Your task to perform on an android device: Clear the cart on target. Search for "usb-c" on target, select the first entry, and add it to the cart. Image 0: 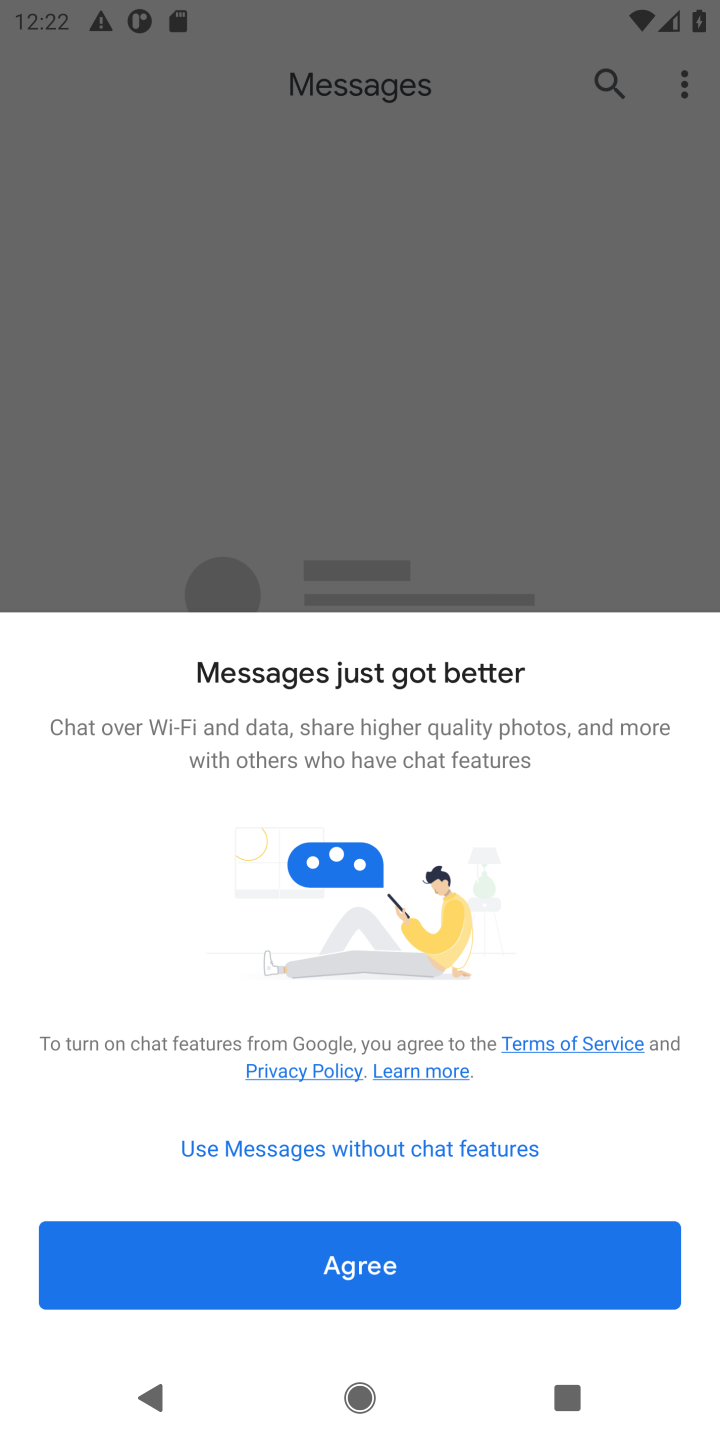
Step 0: press home button
Your task to perform on an android device: Clear the cart on target. Search for "usb-c" on target, select the first entry, and add it to the cart. Image 1: 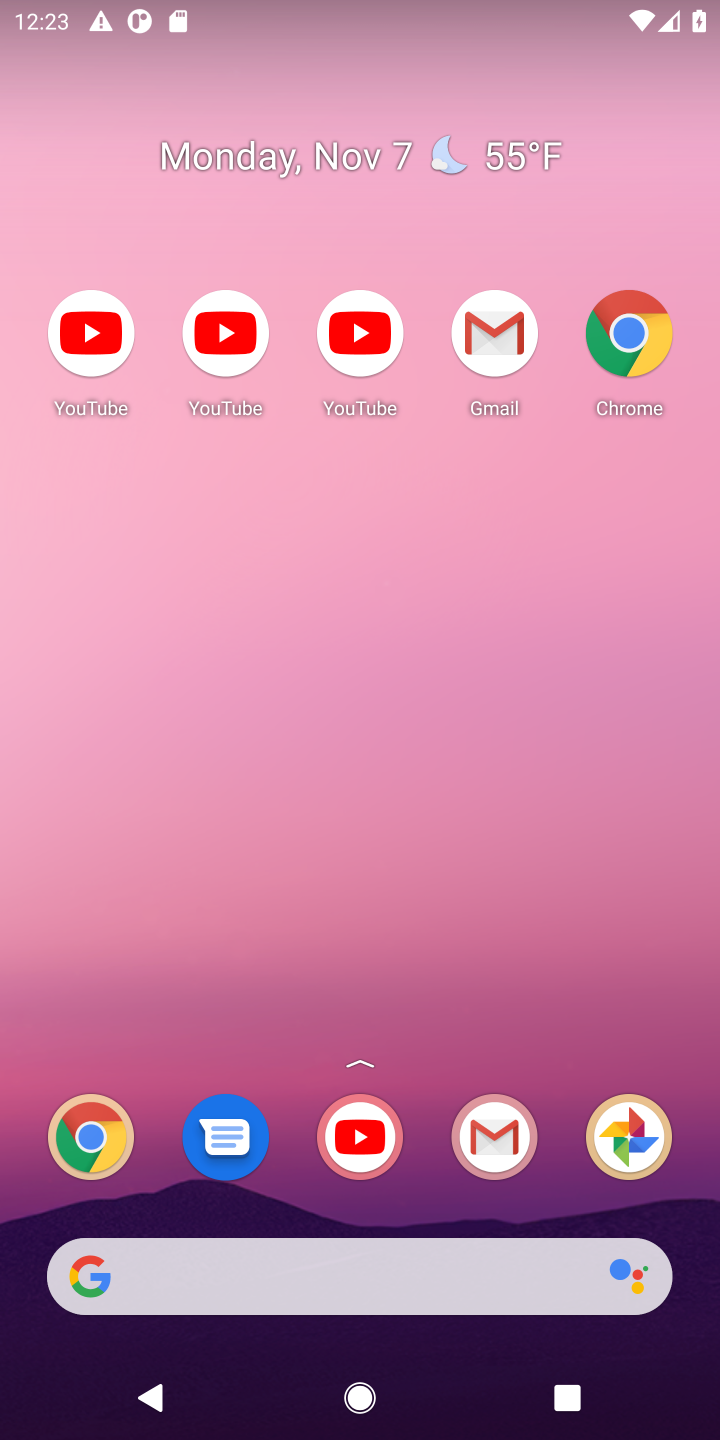
Step 1: drag from (412, 1175) to (485, 121)
Your task to perform on an android device: Clear the cart on target. Search for "usb-c" on target, select the first entry, and add it to the cart. Image 2: 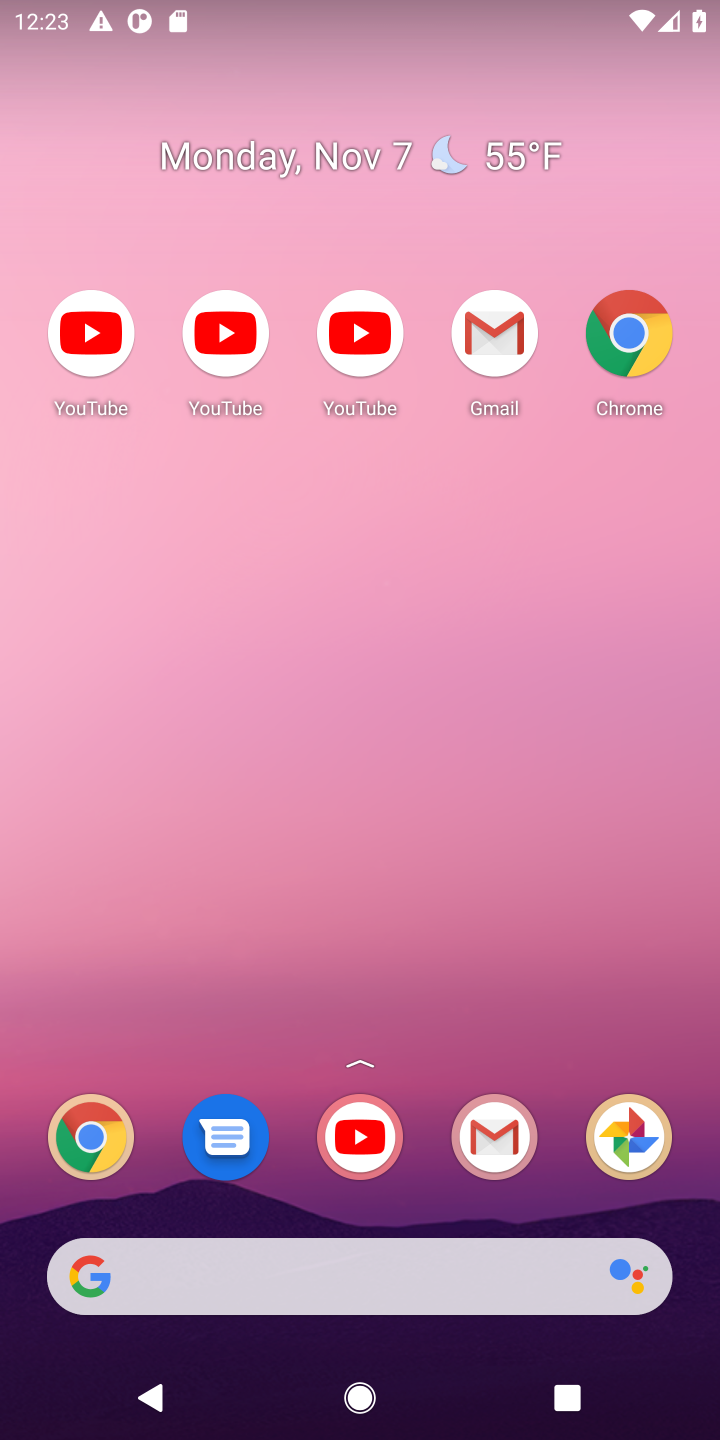
Step 2: drag from (421, 1209) to (432, 144)
Your task to perform on an android device: Clear the cart on target. Search for "usb-c" on target, select the first entry, and add it to the cart. Image 3: 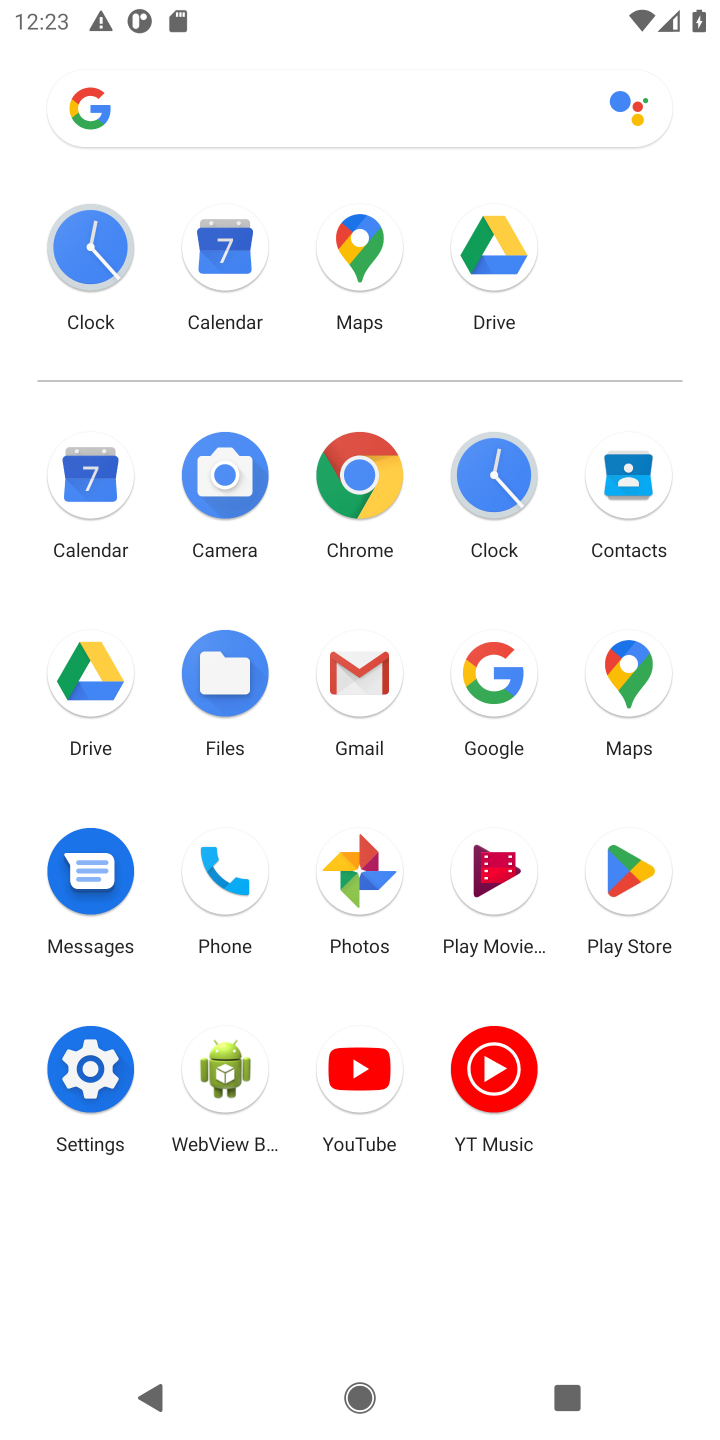
Step 3: click (343, 470)
Your task to perform on an android device: Clear the cart on target. Search for "usb-c" on target, select the first entry, and add it to the cart. Image 4: 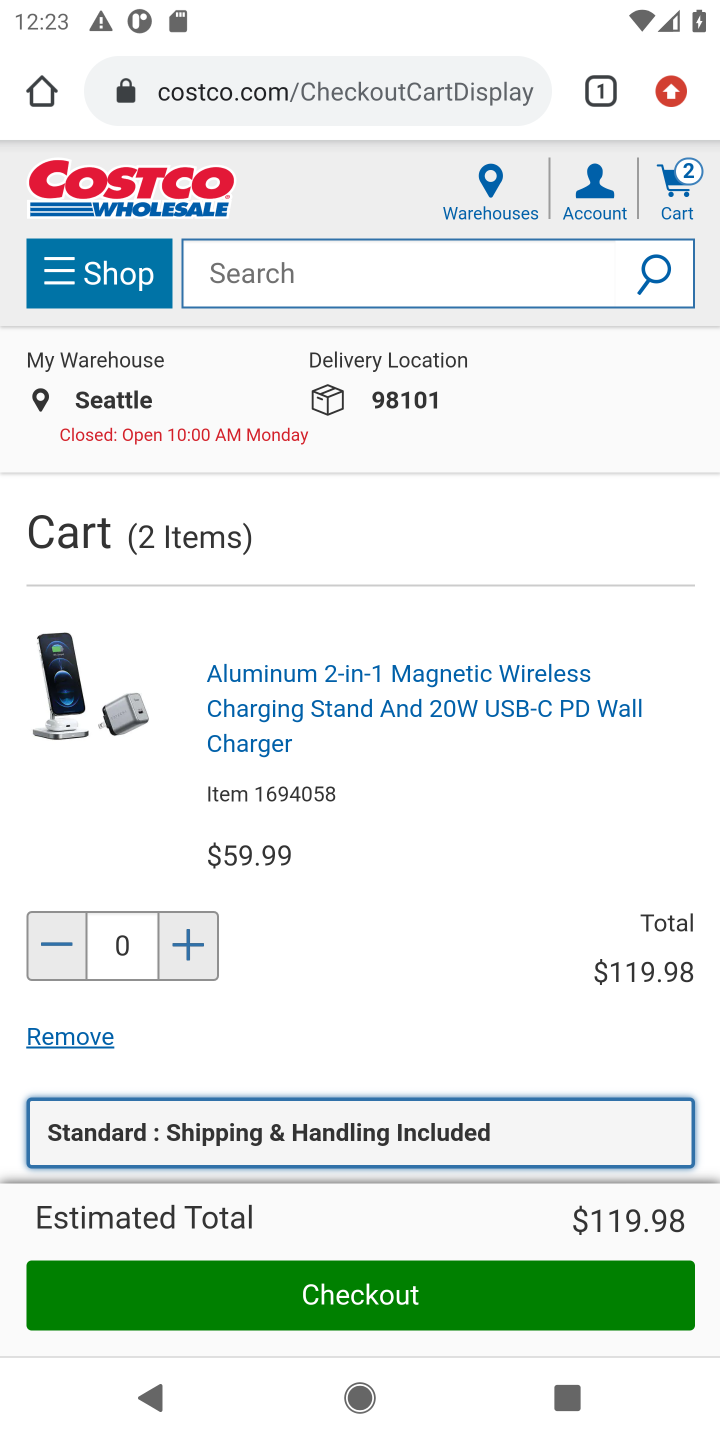
Step 4: click (379, 99)
Your task to perform on an android device: Clear the cart on target. Search for "usb-c" on target, select the first entry, and add it to the cart. Image 5: 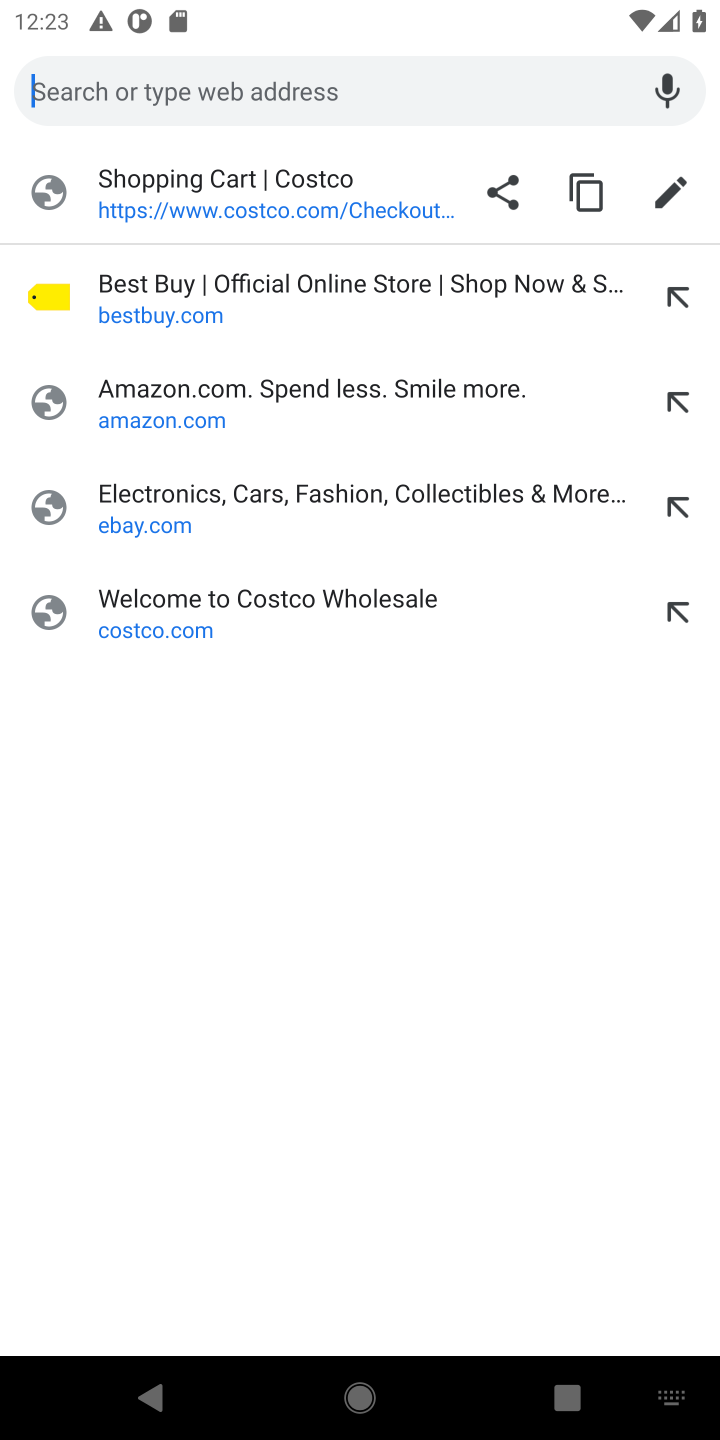
Step 5: type "target.com"
Your task to perform on an android device: Clear the cart on target. Search for "usb-c" on target, select the first entry, and add it to the cart. Image 6: 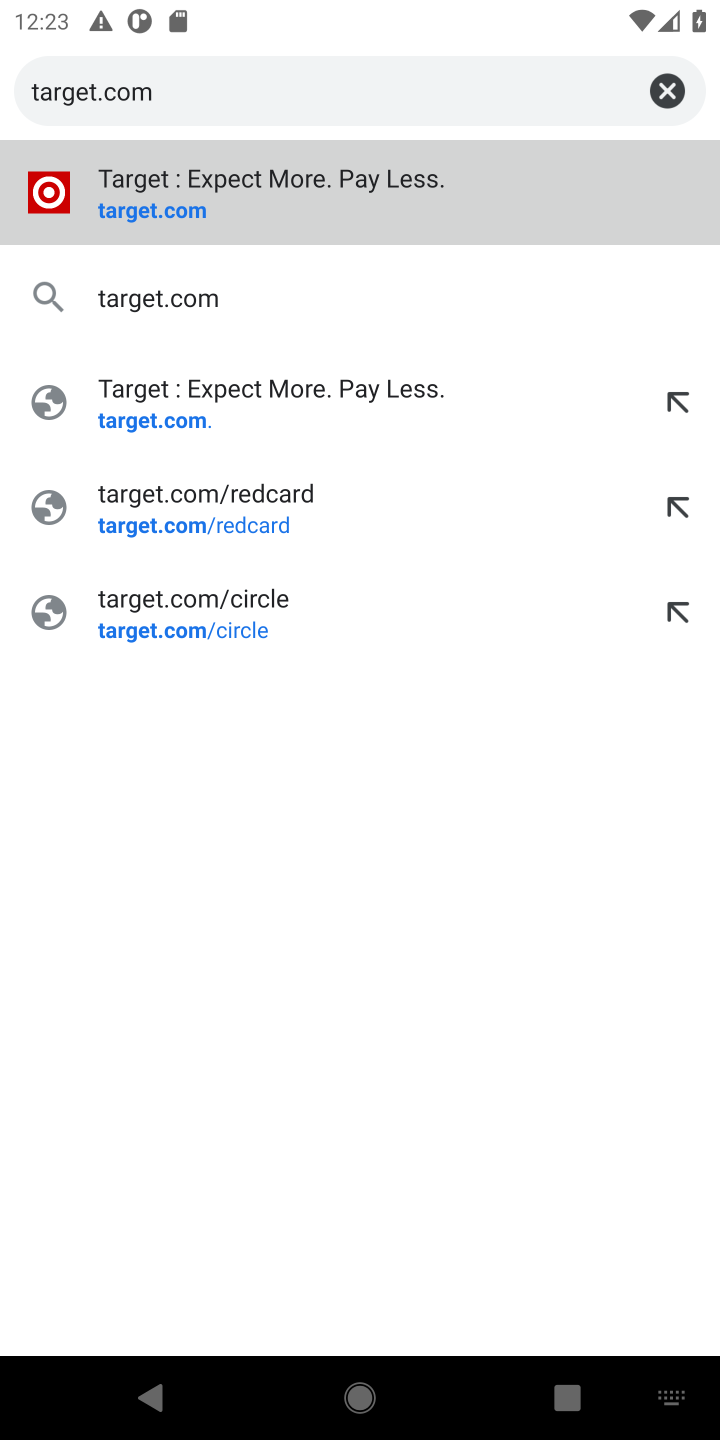
Step 6: press enter
Your task to perform on an android device: Clear the cart on target. Search for "usb-c" on target, select the first entry, and add it to the cart. Image 7: 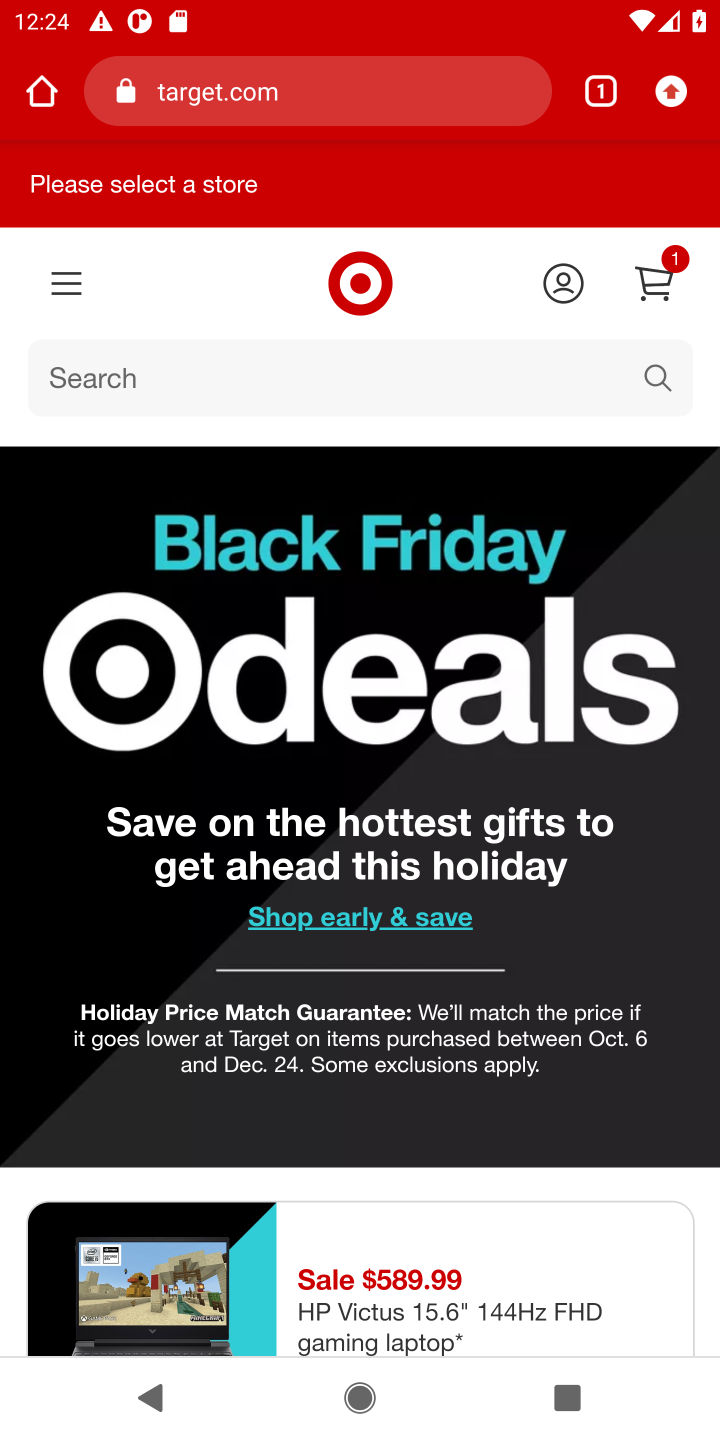
Step 7: click (653, 274)
Your task to perform on an android device: Clear the cart on target. Search for "usb-c" on target, select the first entry, and add it to the cart. Image 8: 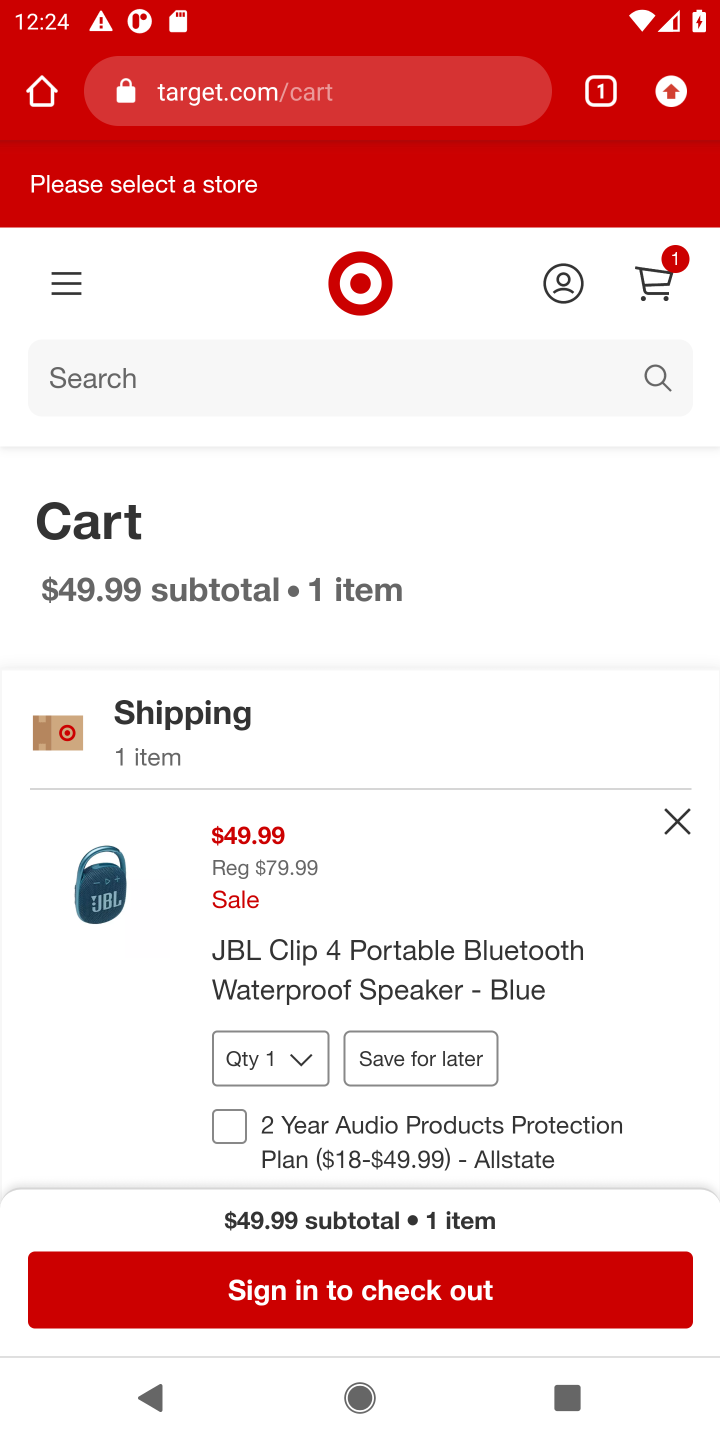
Step 8: click (673, 824)
Your task to perform on an android device: Clear the cart on target. Search for "usb-c" on target, select the first entry, and add it to the cart. Image 9: 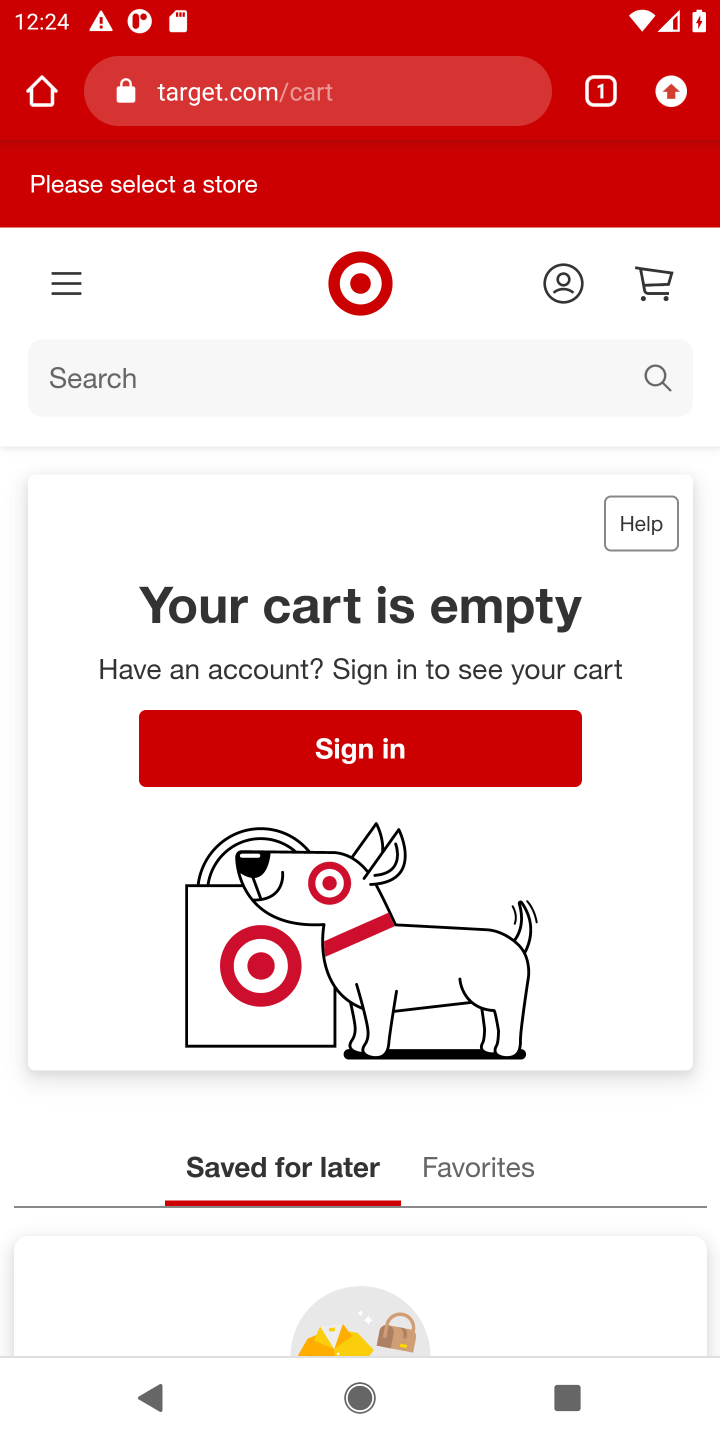
Step 9: click (474, 382)
Your task to perform on an android device: Clear the cart on target. Search for "usb-c" on target, select the first entry, and add it to the cart. Image 10: 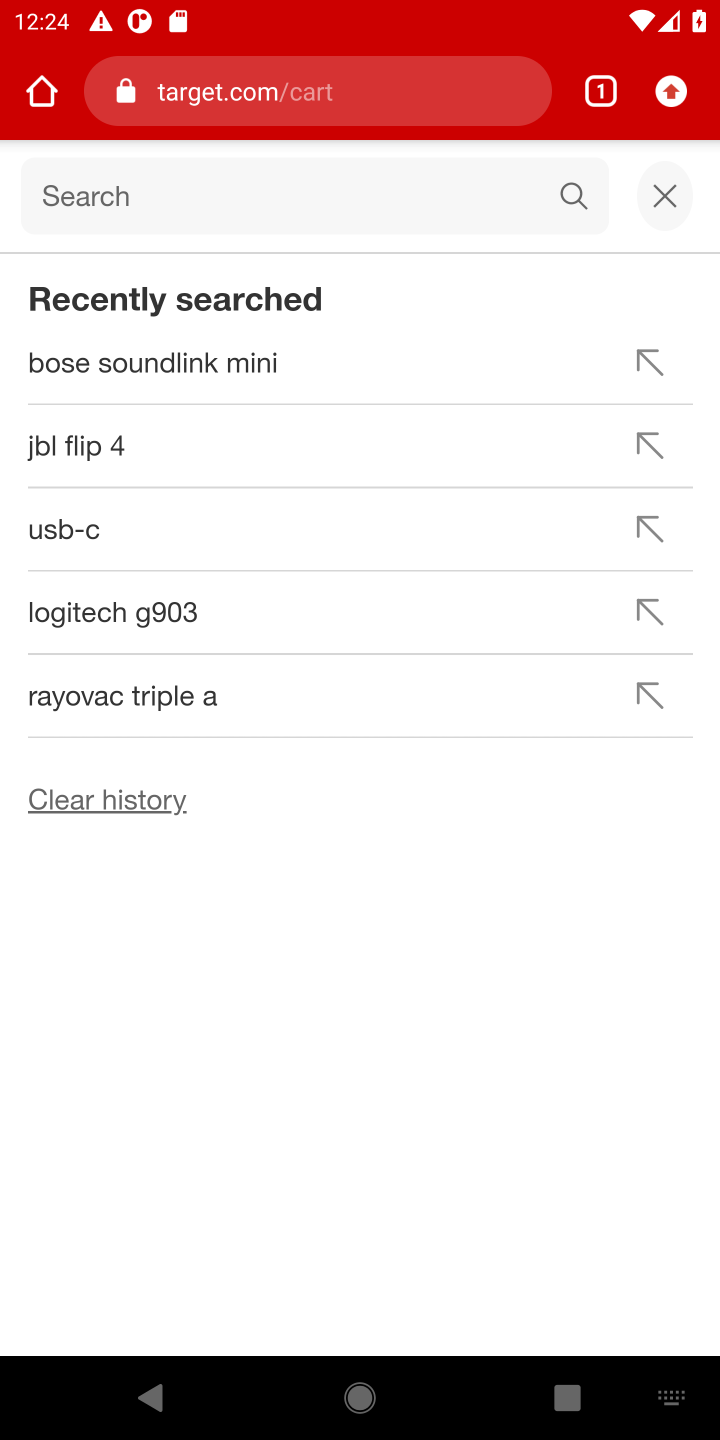
Step 10: type "usb-c"
Your task to perform on an android device: Clear the cart on target. Search for "usb-c" on target, select the first entry, and add it to the cart. Image 11: 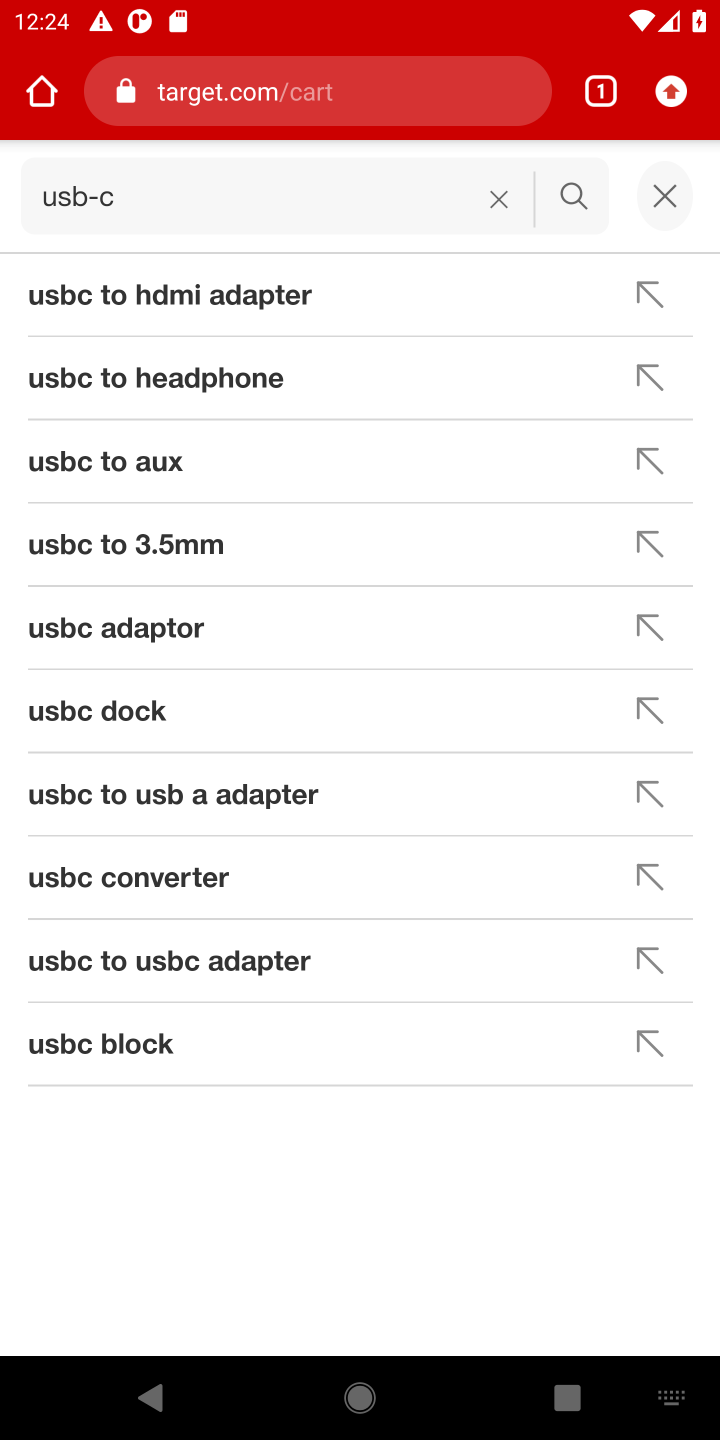
Step 11: press enter
Your task to perform on an android device: Clear the cart on target. Search for "usb-c" on target, select the first entry, and add it to the cart. Image 12: 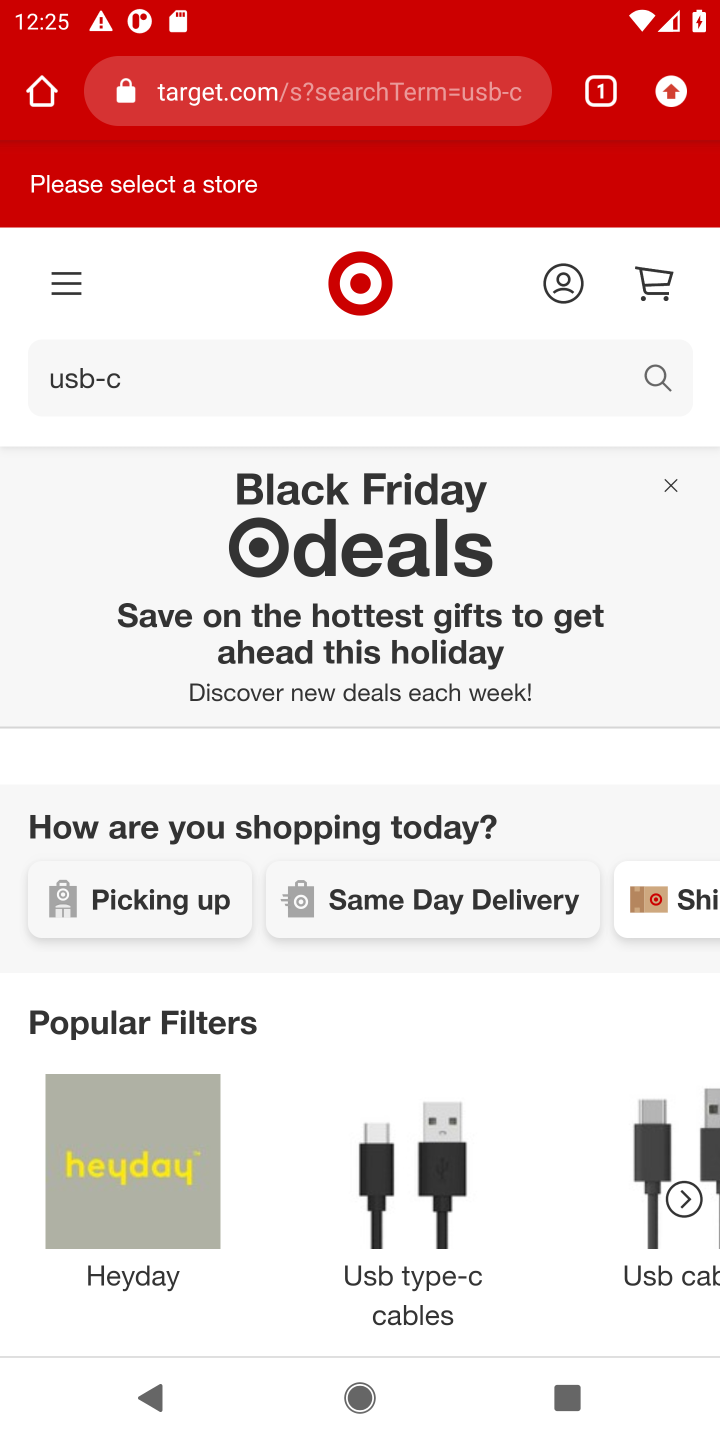
Step 12: drag from (295, 1110) to (302, 770)
Your task to perform on an android device: Clear the cart on target. Search for "usb-c" on target, select the first entry, and add it to the cart. Image 13: 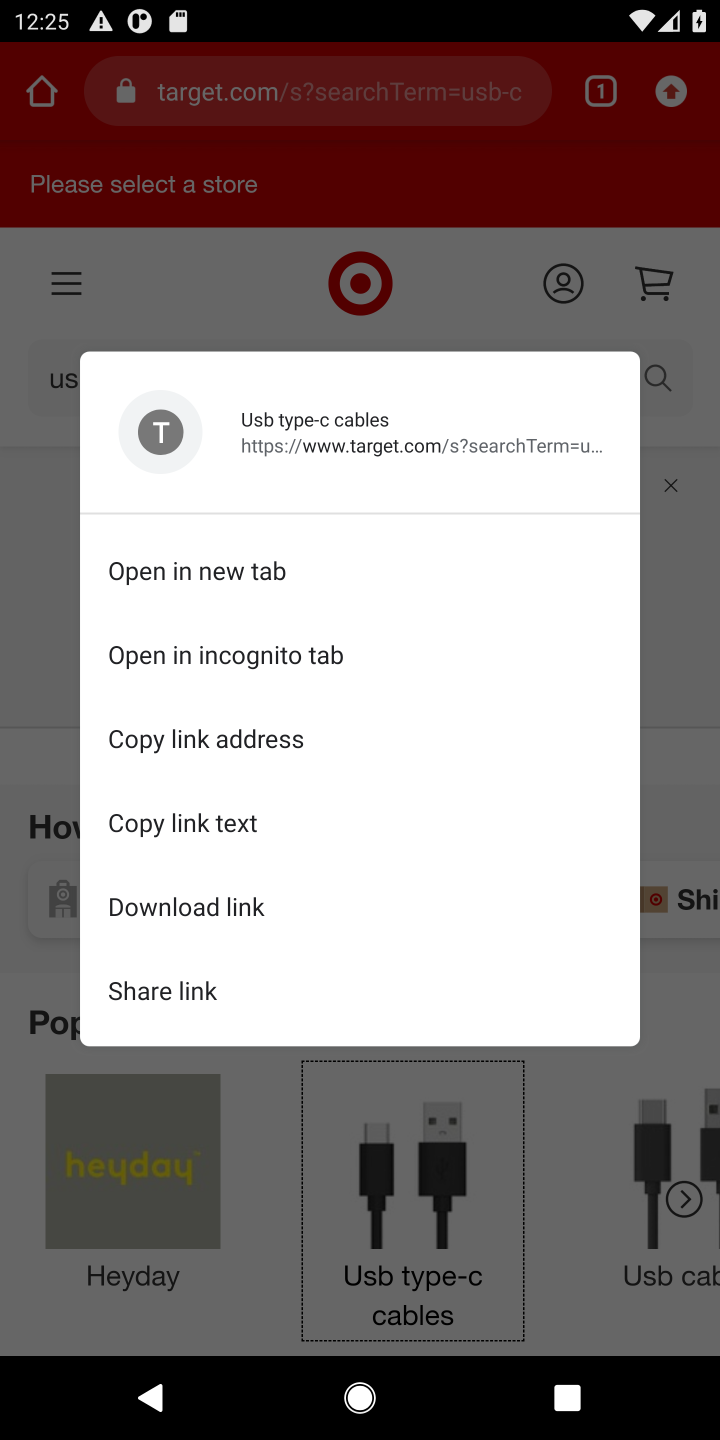
Step 13: click (583, 291)
Your task to perform on an android device: Clear the cart on target. Search for "usb-c" on target, select the first entry, and add it to the cart. Image 14: 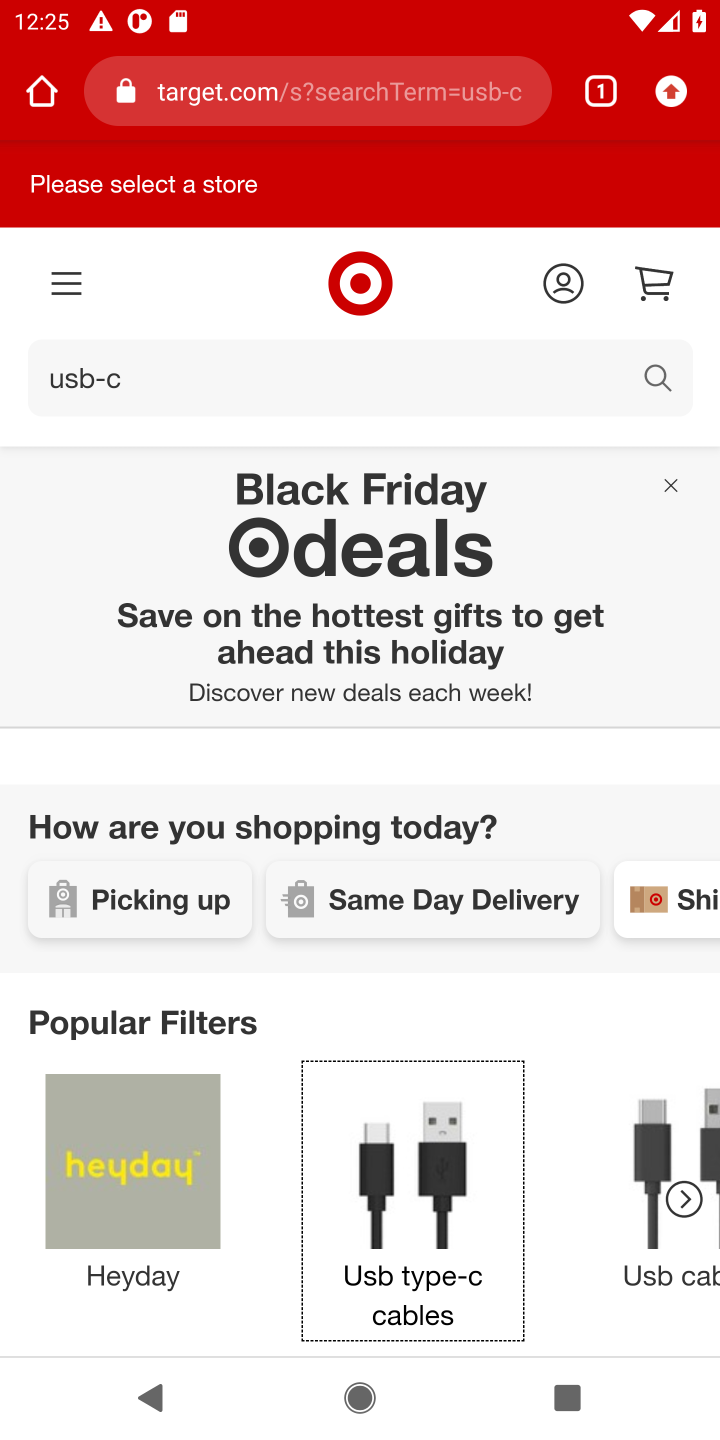
Step 14: drag from (557, 1276) to (473, 291)
Your task to perform on an android device: Clear the cart on target. Search for "usb-c" on target, select the first entry, and add it to the cart. Image 15: 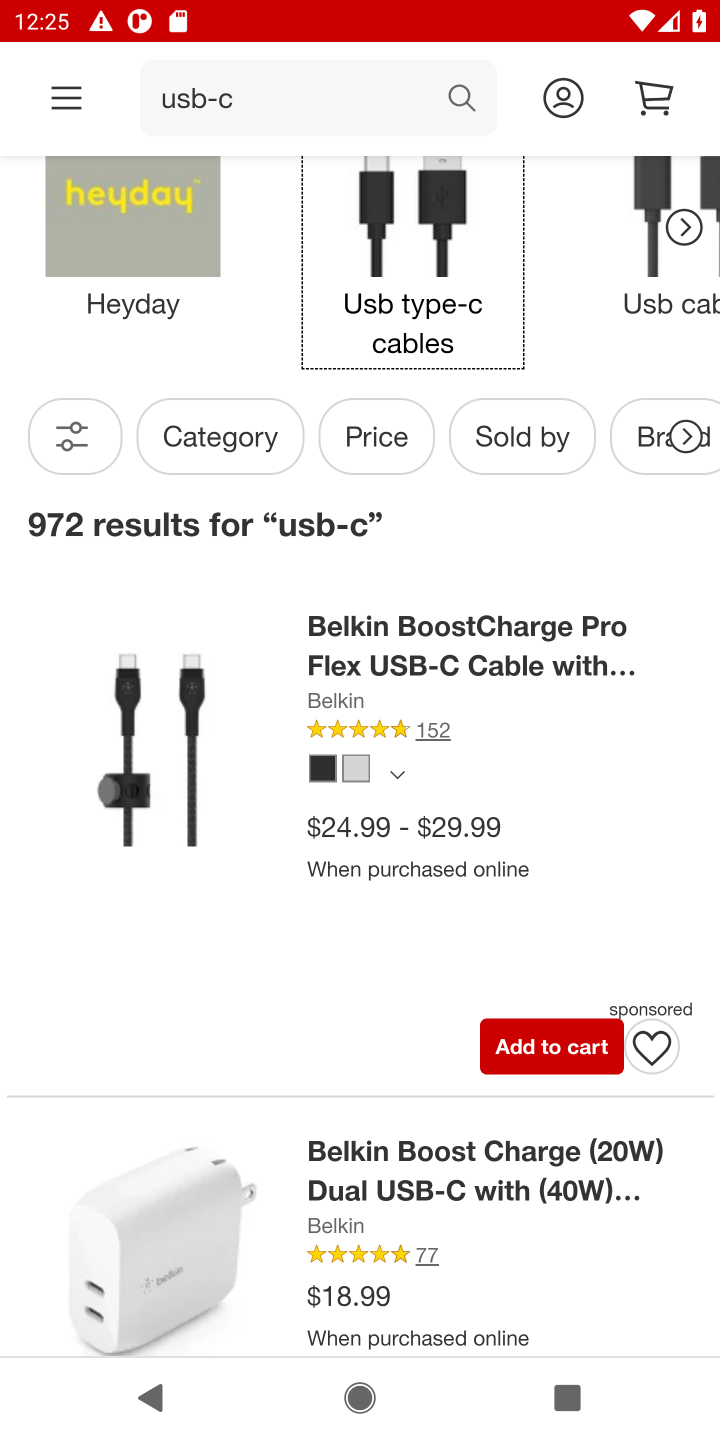
Step 15: click (552, 1043)
Your task to perform on an android device: Clear the cart on target. Search for "usb-c" on target, select the first entry, and add it to the cart. Image 16: 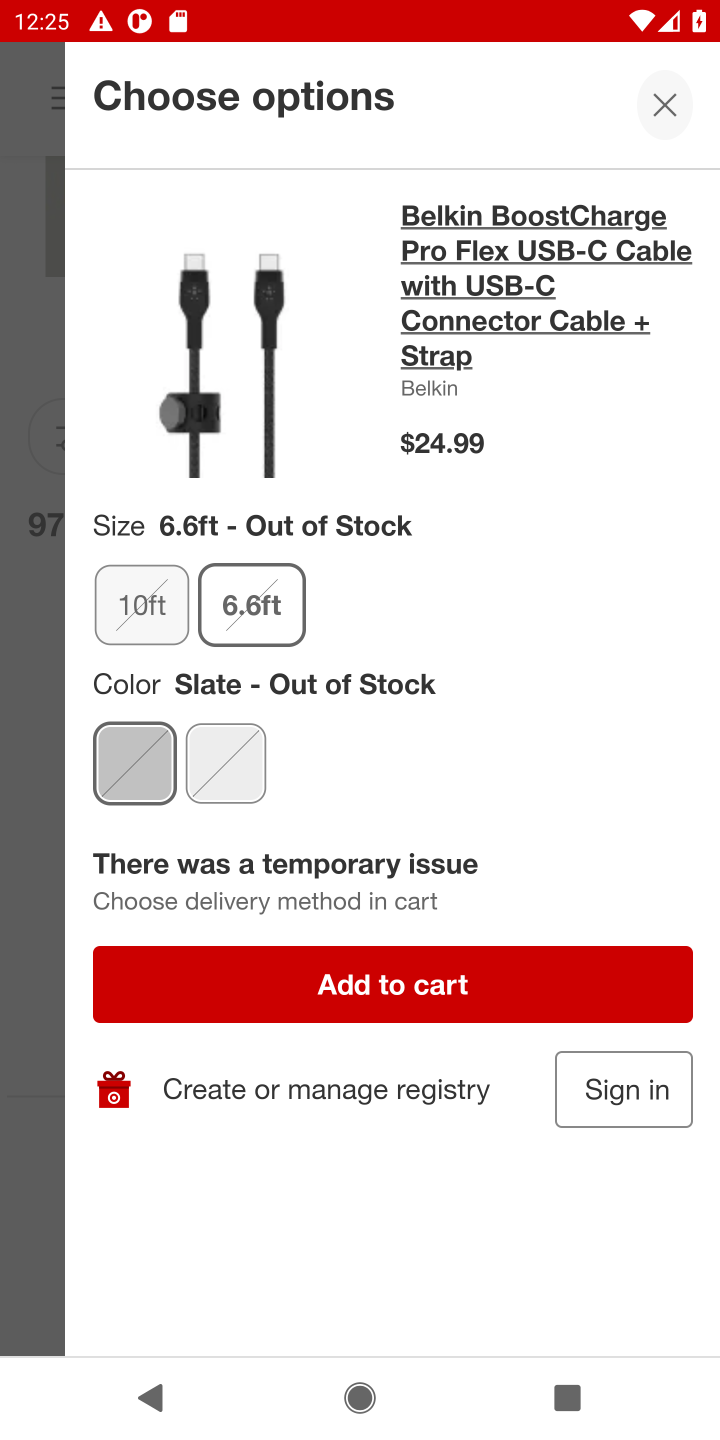
Step 16: click (496, 1011)
Your task to perform on an android device: Clear the cart on target. Search for "usb-c" on target, select the first entry, and add it to the cart. Image 17: 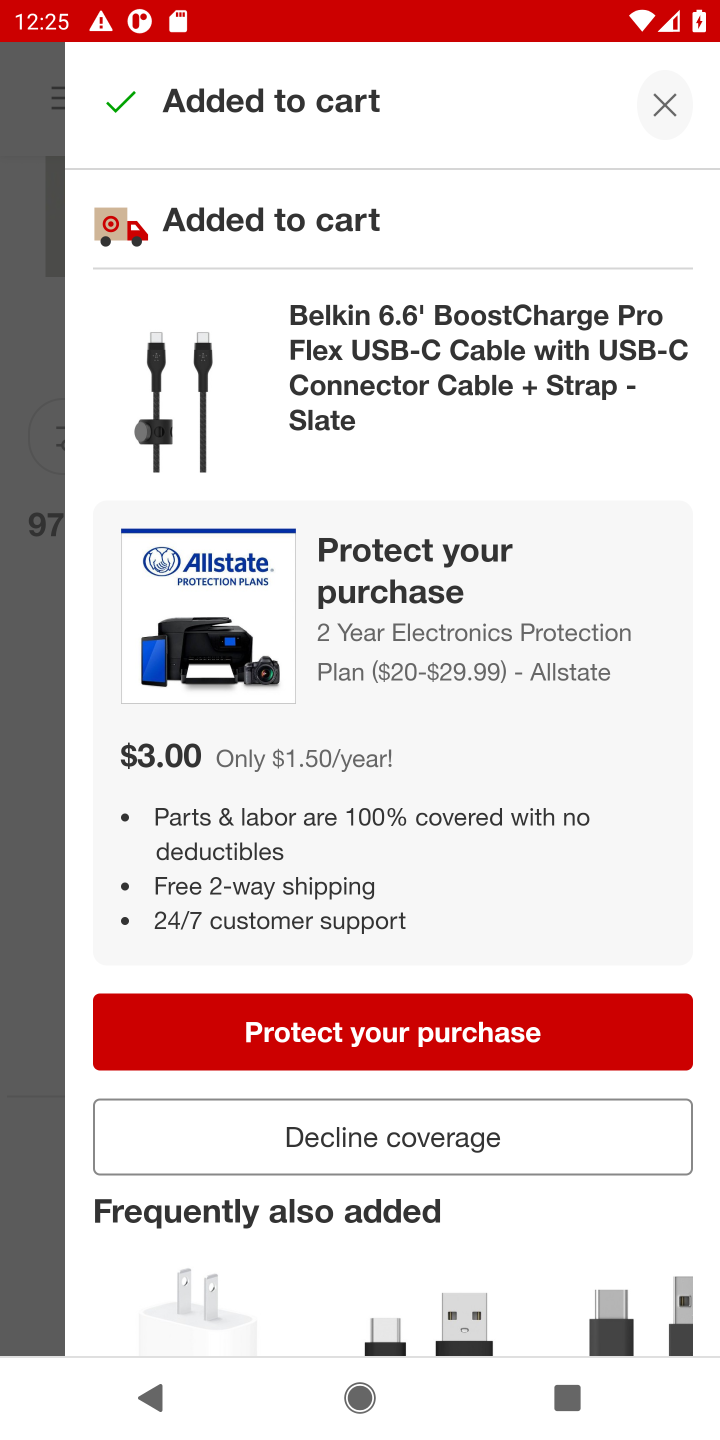
Step 17: task complete